Your task to perform on an android device: Go to wifi settings Image 0: 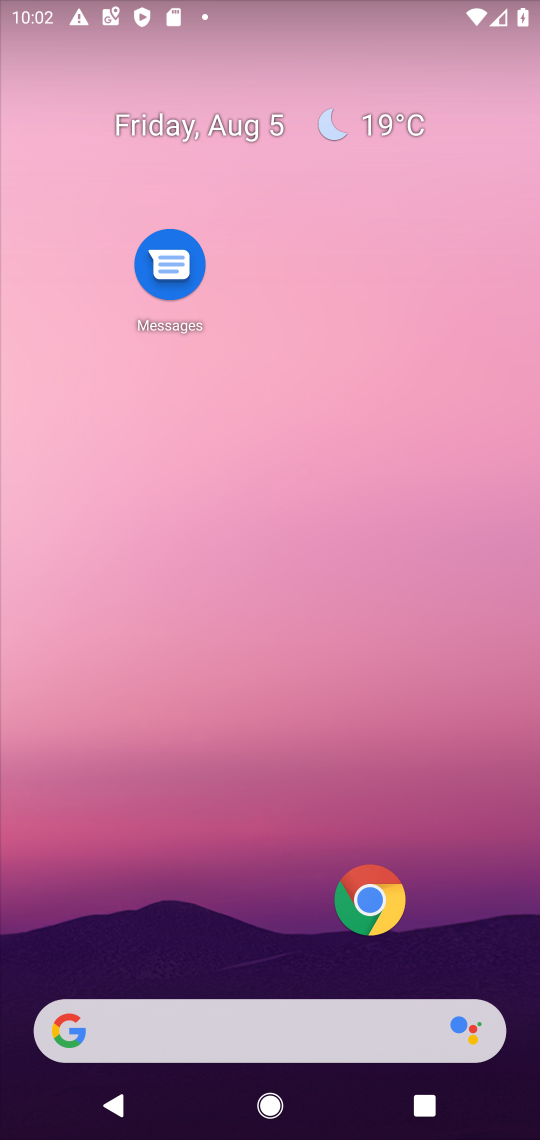
Step 0: press home button
Your task to perform on an android device: Go to wifi settings Image 1: 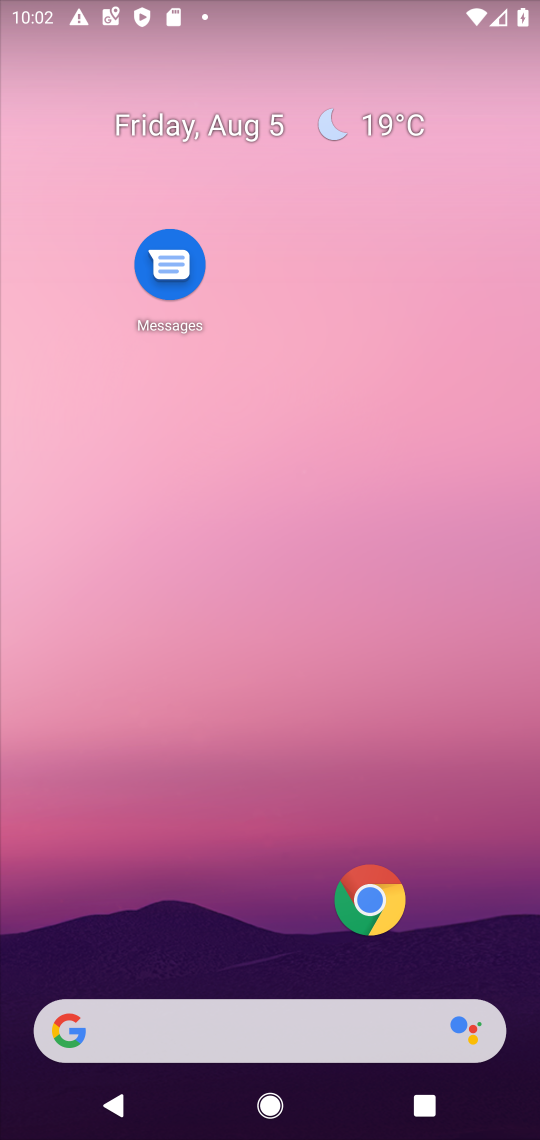
Step 1: drag from (249, 882) to (287, 463)
Your task to perform on an android device: Go to wifi settings Image 2: 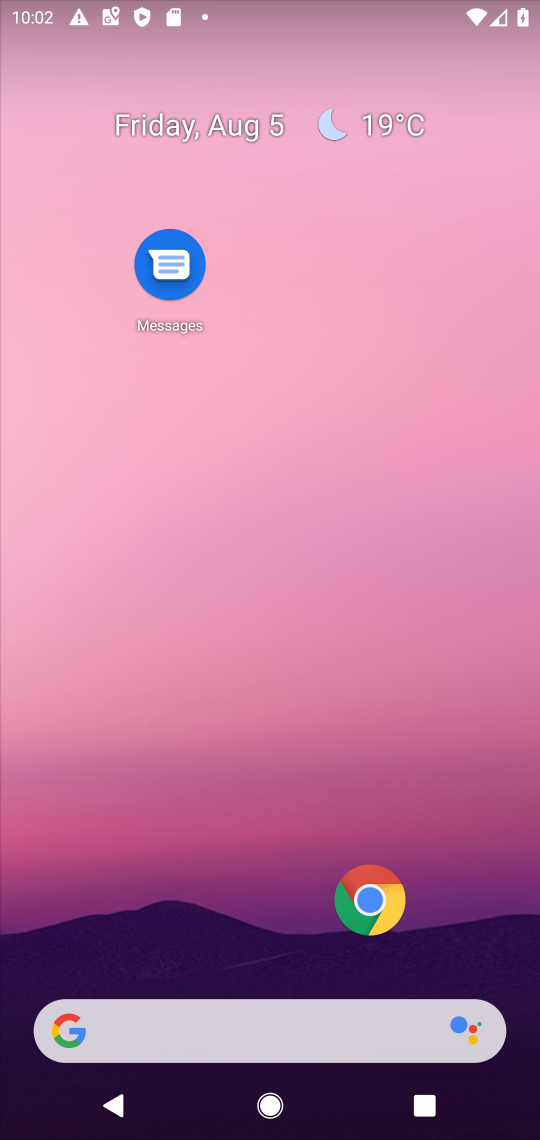
Step 2: drag from (214, 11) to (194, 943)
Your task to perform on an android device: Go to wifi settings Image 3: 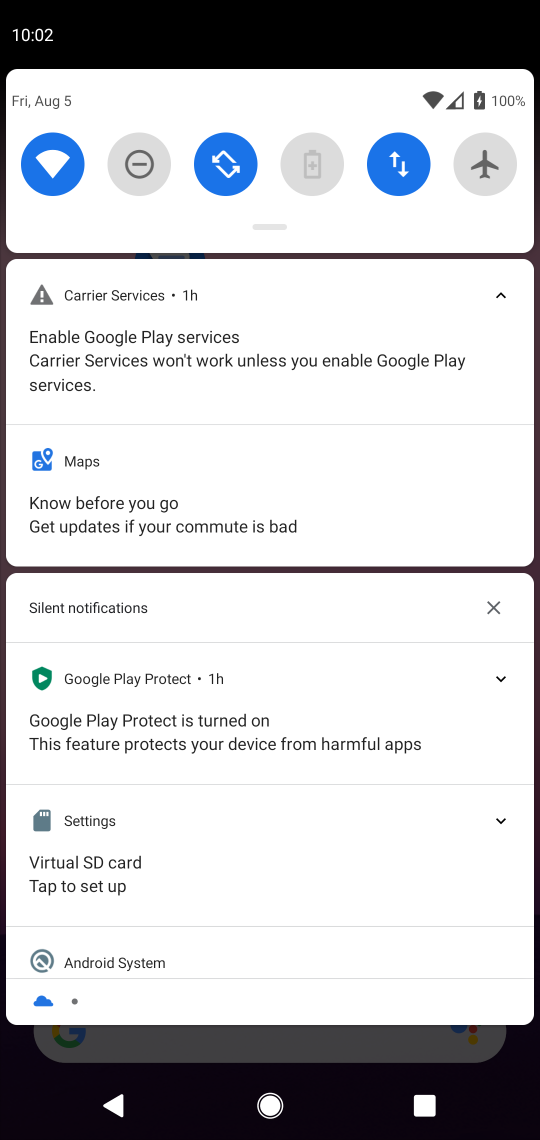
Step 3: click (67, 151)
Your task to perform on an android device: Go to wifi settings Image 4: 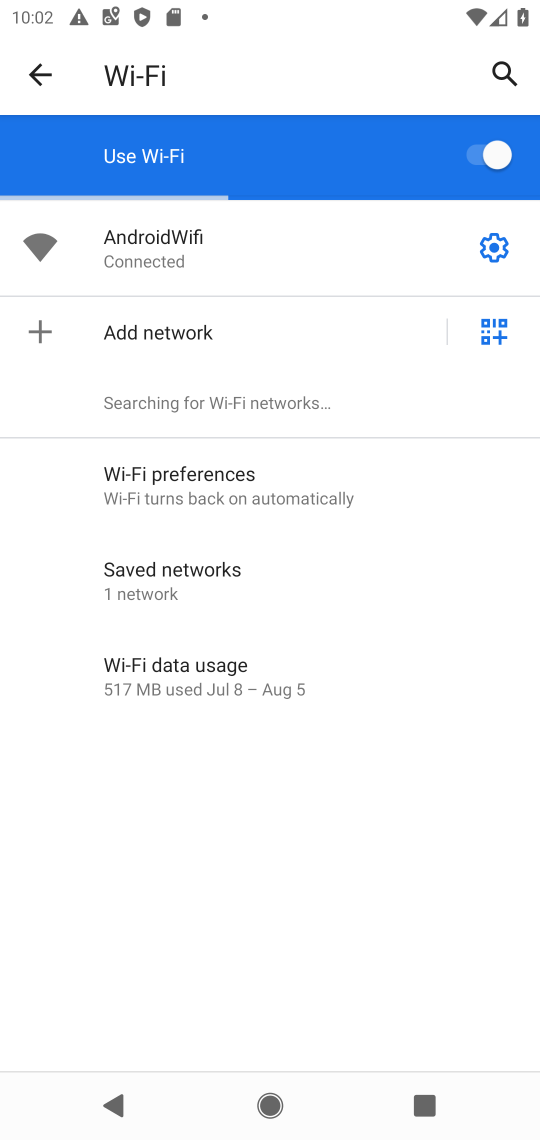
Step 4: task complete